Your task to perform on an android device: See recent photos Image 0: 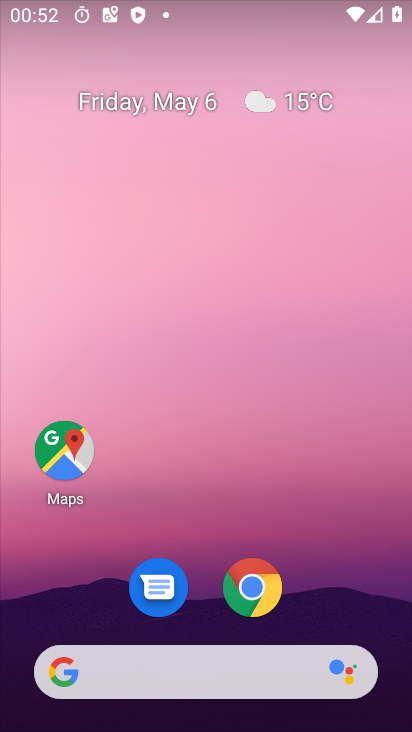
Step 0: drag from (374, 350) to (371, 274)
Your task to perform on an android device: See recent photos Image 1: 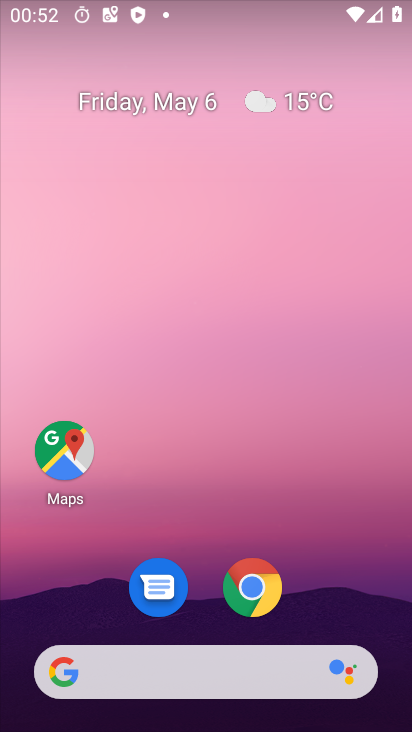
Step 1: click (343, 289)
Your task to perform on an android device: See recent photos Image 2: 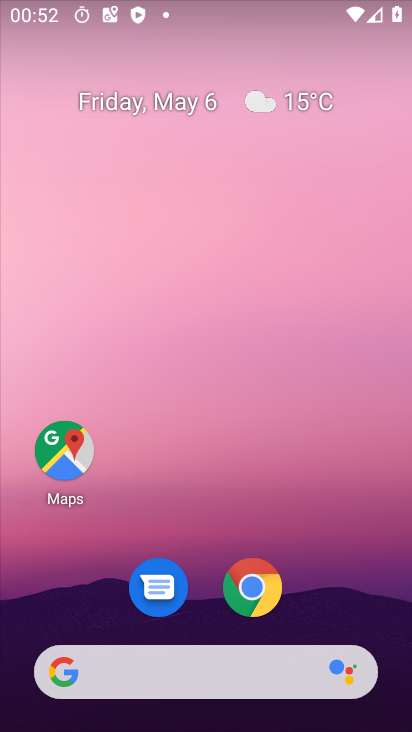
Step 2: drag from (376, 554) to (361, 207)
Your task to perform on an android device: See recent photos Image 3: 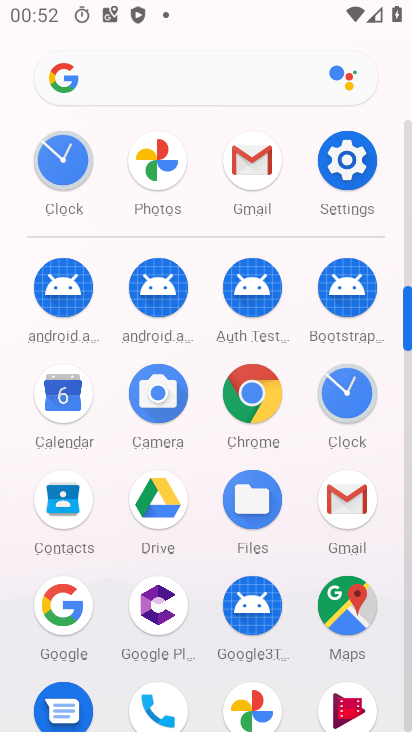
Step 3: click (253, 697)
Your task to perform on an android device: See recent photos Image 4: 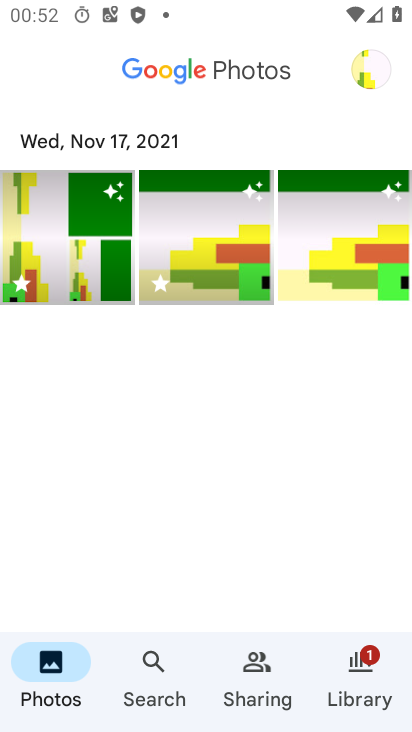
Step 4: click (99, 230)
Your task to perform on an android device: See recent photos Image 5: 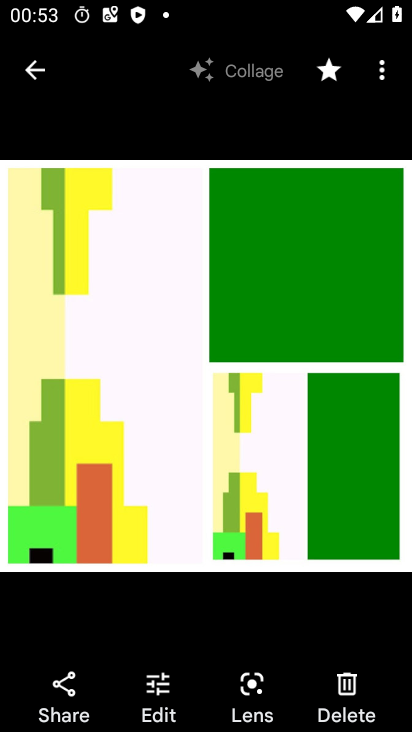
Step 5: click (28, 72)
Your task to perform on an android device: See recent photos Image 6: 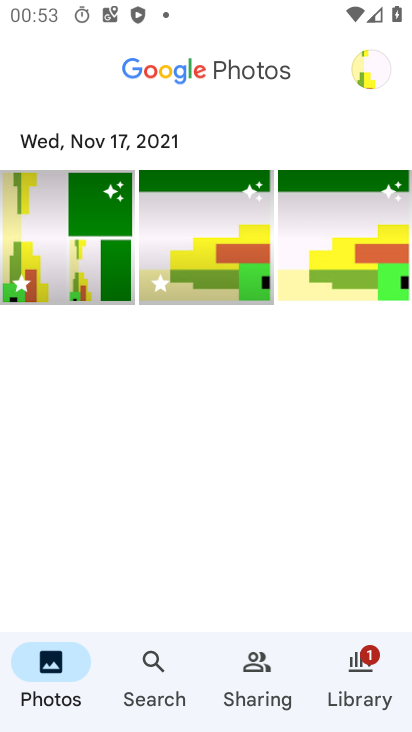
Step 6: click (193, 271)
Your task to perform on an android device: See recent photos Image 7: 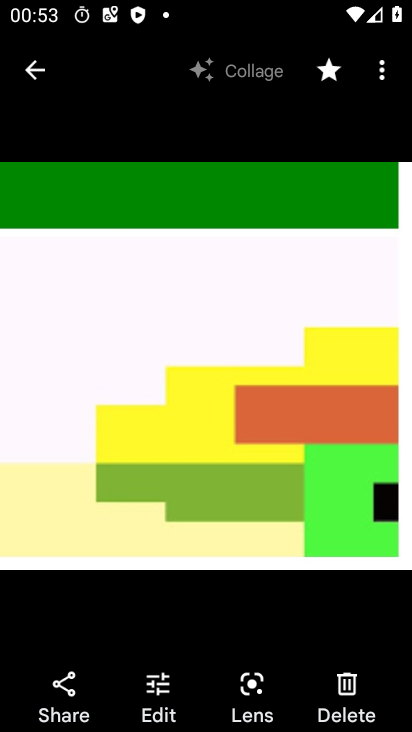
Step 7: click (40, 60)
Your task to perform on an android device: See recent photos Image 8: 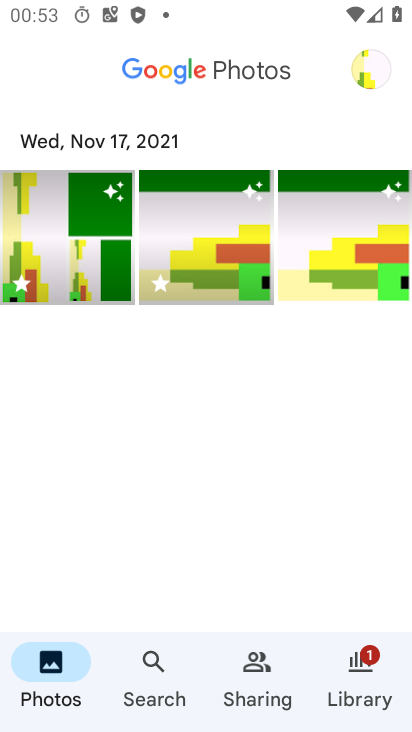
Step 8: task complete